Your task to perform on an android device: open app "Spotify: Music and Podcasts" (install if not already installed), go to login, and select forgot password Image 0: 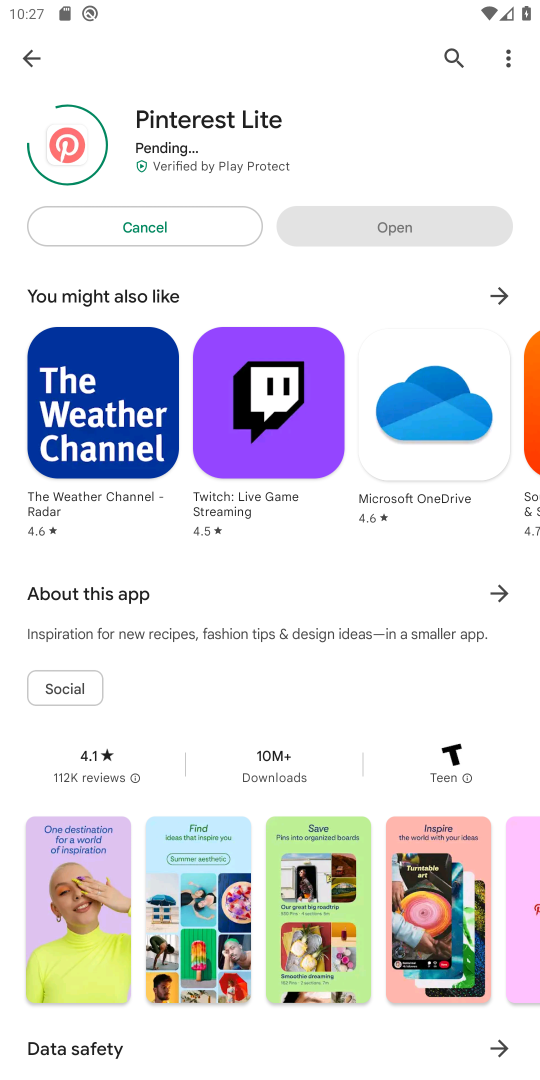
Step 0: press home button
Your task to perform on an android device: open app "Spotify: Music and Podcasts" (install if not already installed), go to login, and select forgot password Image 1: 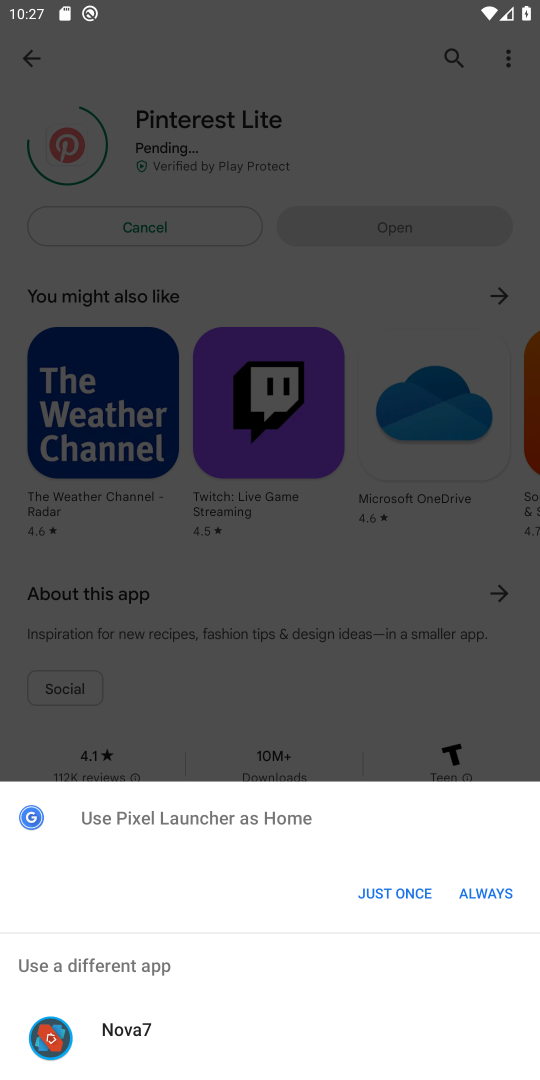
Step 1: click (481, 889)
Your task to perform on an android device: open app "Spotify: Music and Podcasts" (install if not already installed), go to login, and select forgot password Image 2: 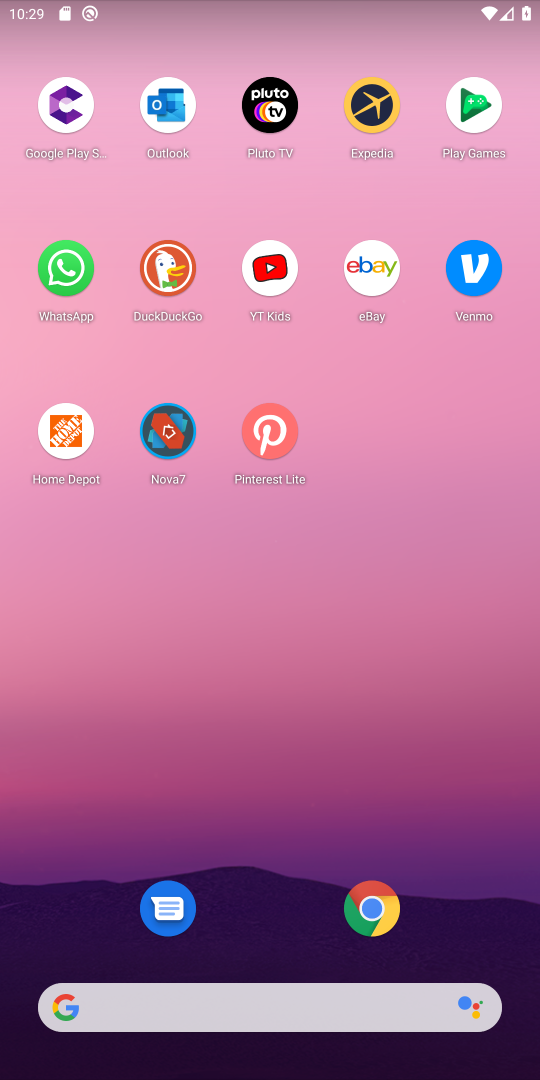
Step 2: drag from (277, 932) to (308, 161)
Your task to perform on an android device: open app "Spotify: Music and Podcasts" (install if not already installed), go to login, and select forgot password Image 3: 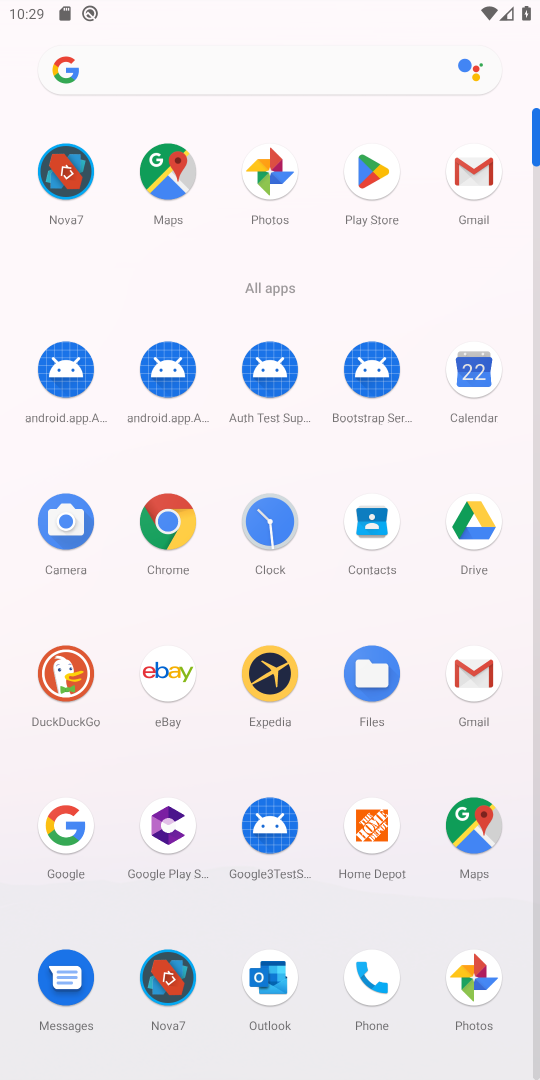
Step 3: click (366, 205)
Your task to perform on an android device: open app "Spotify: Music and Podcasts" (install if not already installed), go to login, and select forgot password Image 4: 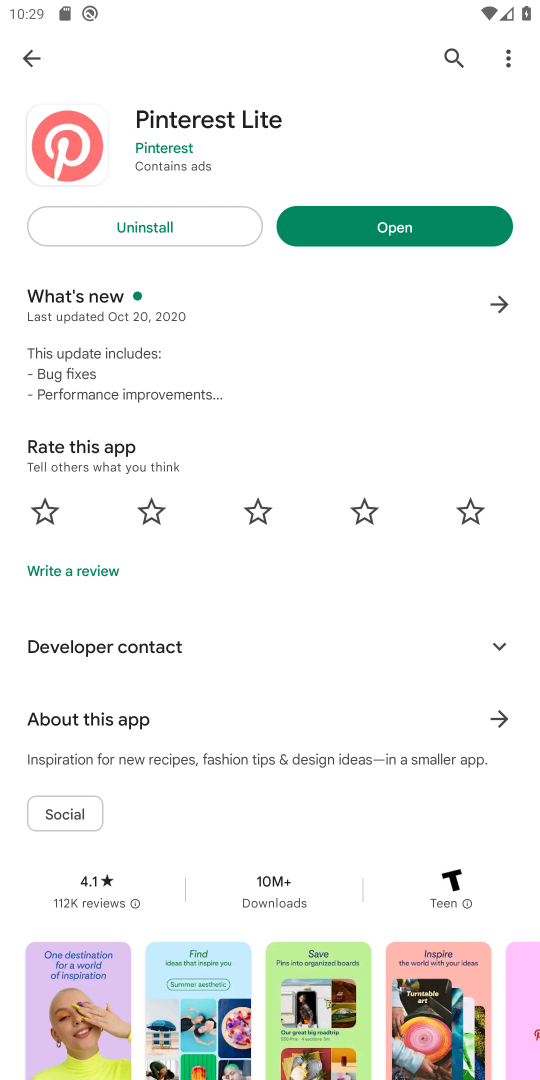
Step 4: click (448, 69)
Your task to perform on an android device: open app "Spotify: Music and Podcasts" (install if not already installed), go to login, and select forgot password Image 5: 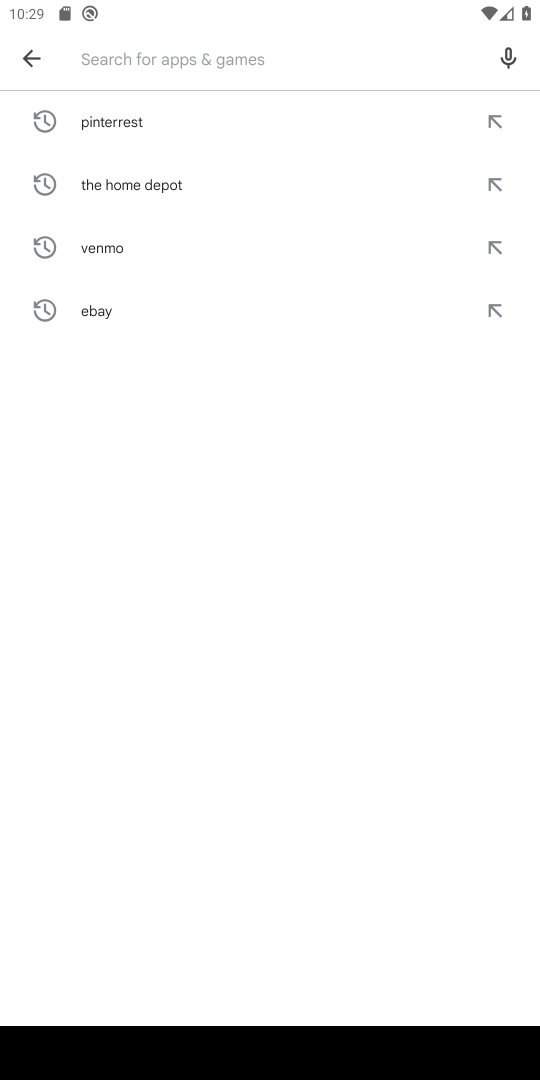
Step 5: type "spotify"
Your task to perform on an android device: open app "Spotify: Music and Podcasts" (install if not already installed), go to login, and select forgot password Image 6: 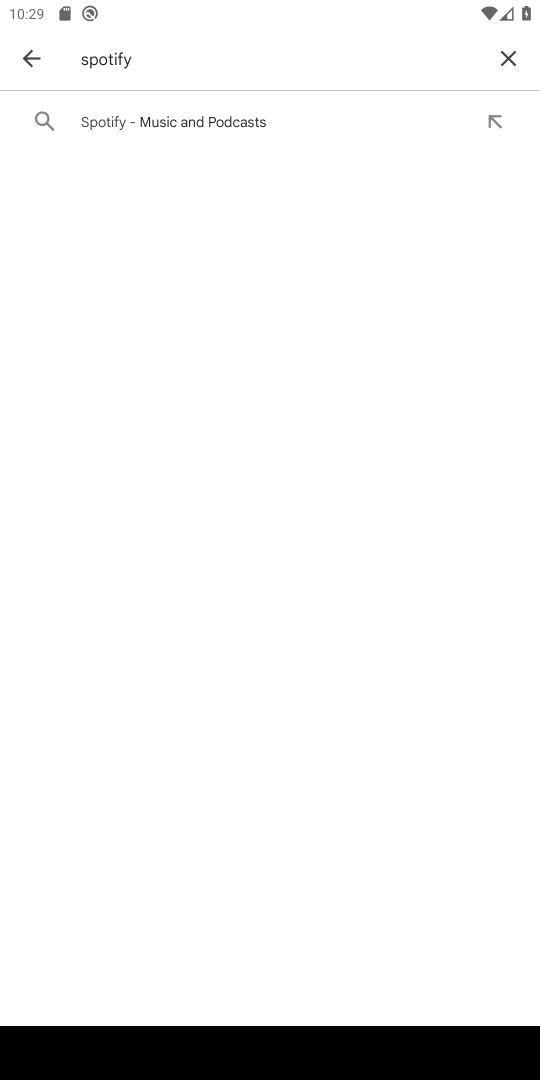
Step 6: click (219, 121)
Your task to perform on an android device: open app "Spotify: Music and Podcasts" (install if not already installed), go to login, and select forgot password Image 7: 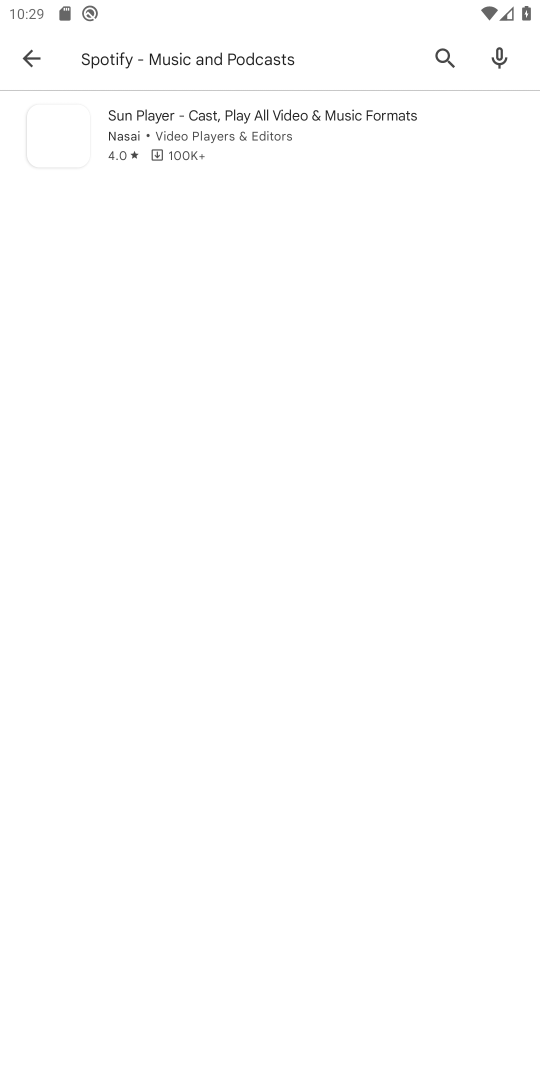
Step 7: click (401, 124)
Your task to perform on an android device: open app "Spotify: Music and Podcasts" (install if not already installed), go to login, and select forgot password Image 8: 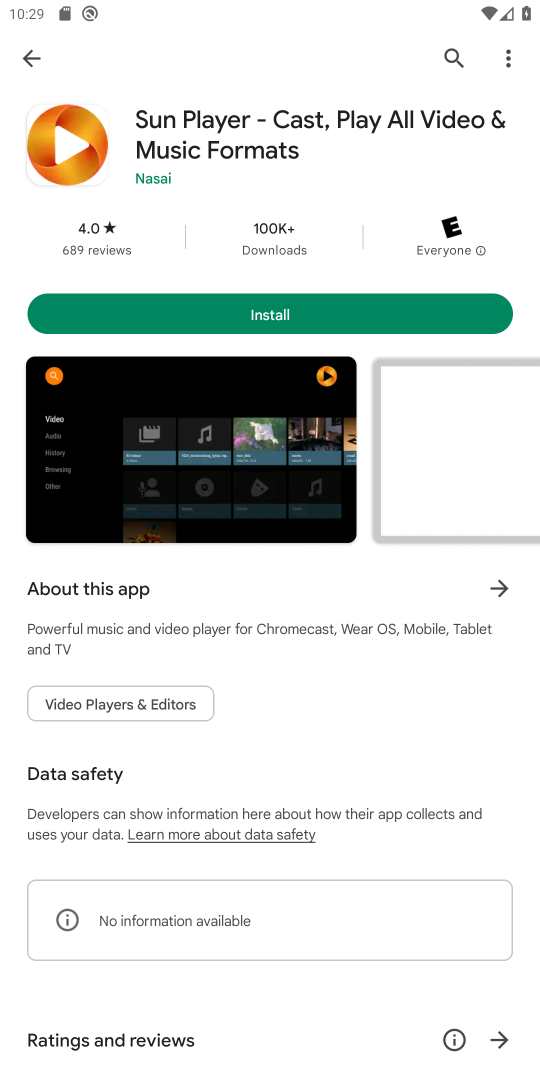
Step 8: task complete